Your task to perform on an android device: turn off location history Image 0: 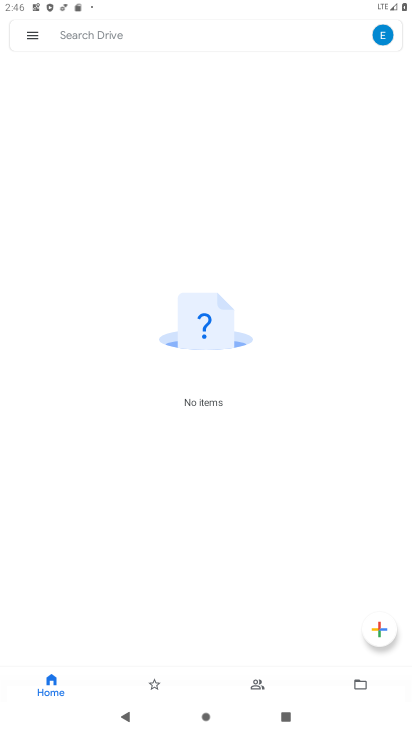
Step 0: press home button
Your task to perform on an android device: turn off location history Image 1: 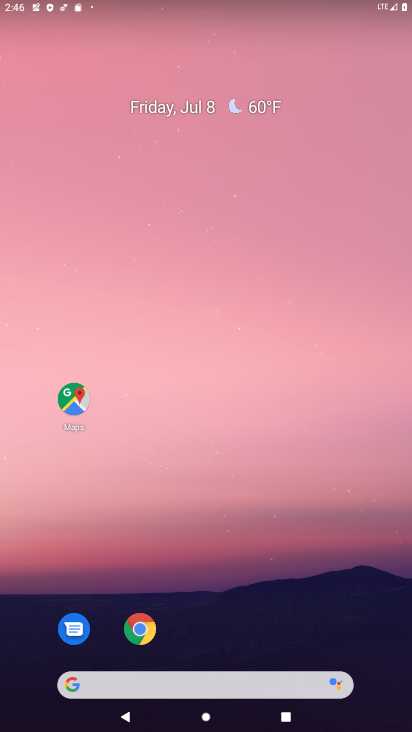
Step 1: drag from (212, 634) to (216, 240)
Your task to perform on an android device: turn off location history Image 2: 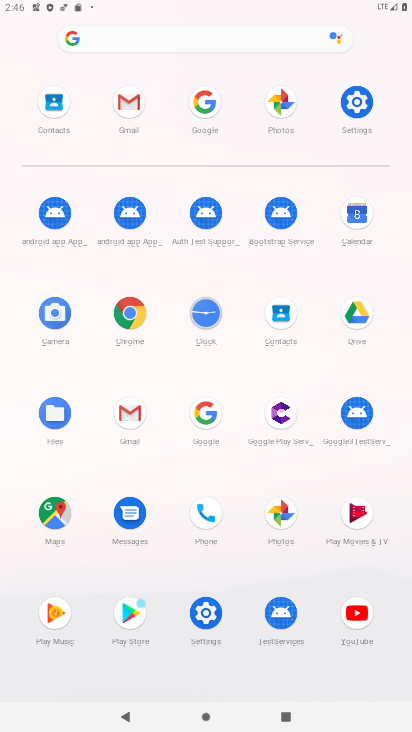
Step 2: click (351, 101)
Your task to perform on an android device: turn off location history Image 3: 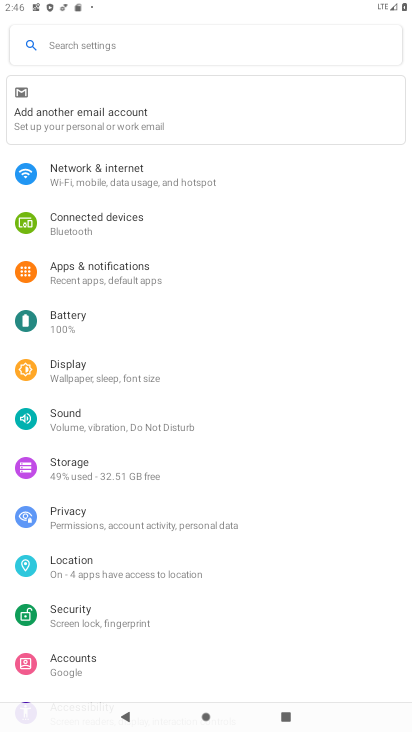
Step 3: click (133, 560)
Your task to perform on an android device: turn off location history Image 4: 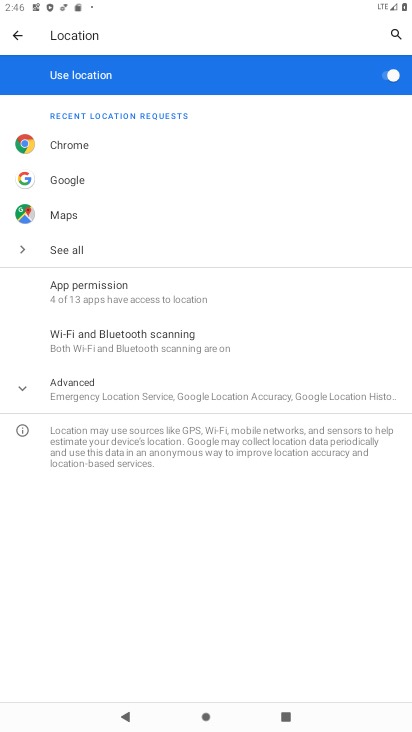
Step 4: click (163, 386)
Your task to perform on an android device: turn off location history Image 5: 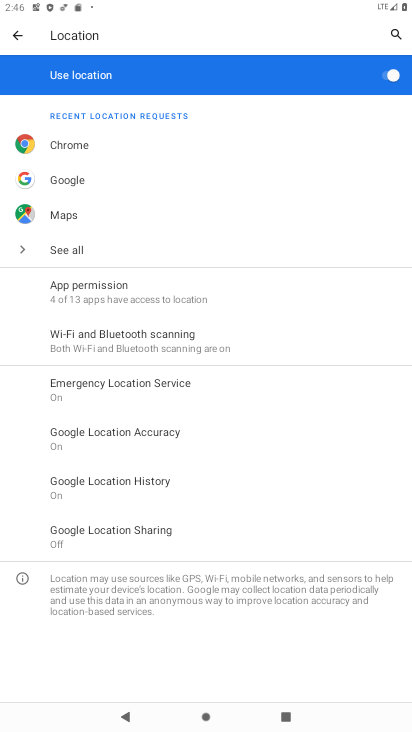
Step 5: click (179, 484)
Your task to perform on an android device: turn off location history Image 6: 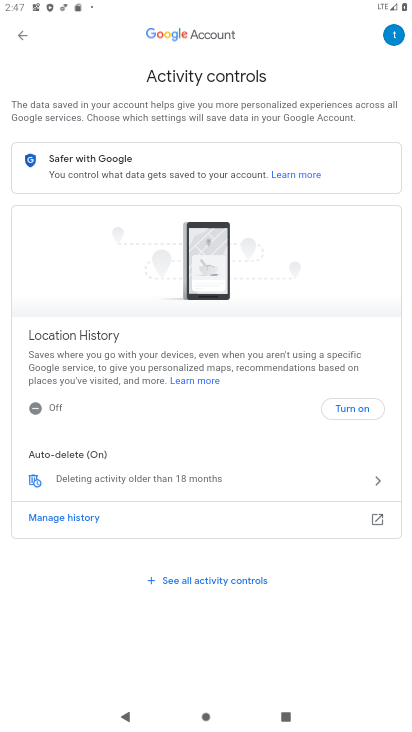
Step 6: task complete